Your task to perform on an android device: refresh tabs in the chrome app Image 0: 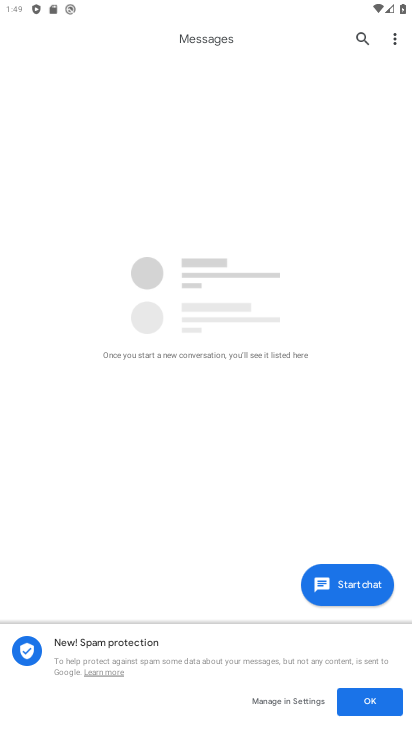
Step 0: press home button
Your task to perform on an android device: refresh tabs in the chrome app Image 1: 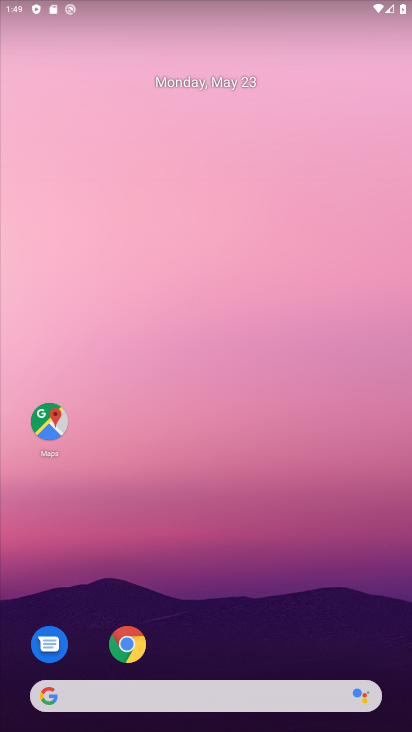
Step 1: drag from (245, 547) to (189, 14)
Your task to perform on an android device: refresh tabs in the chrome app Image 2: 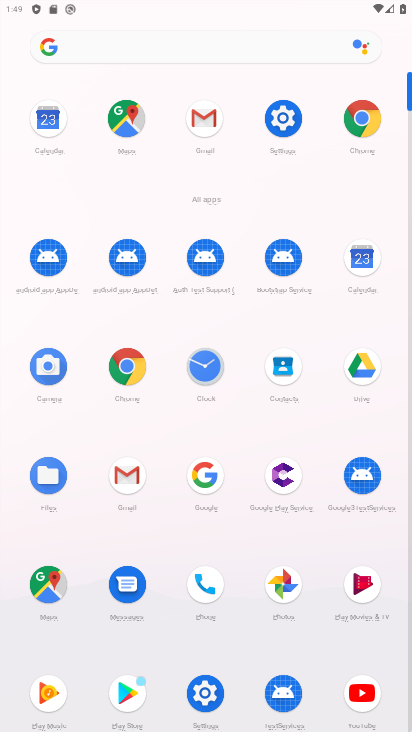
Step 2: click (359, 125)
Your task to perform on an android device: refresh tabs in the chrome app Image 3: 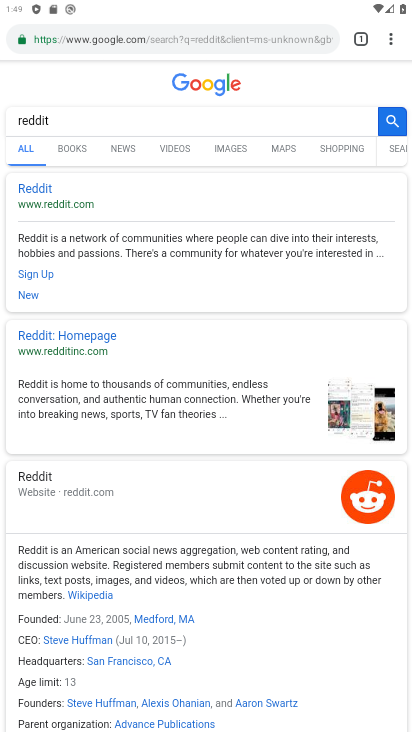
Step 3: click (384, 38)
Your task to perform on an android device: refresh tabs in the chrome app Image 4: 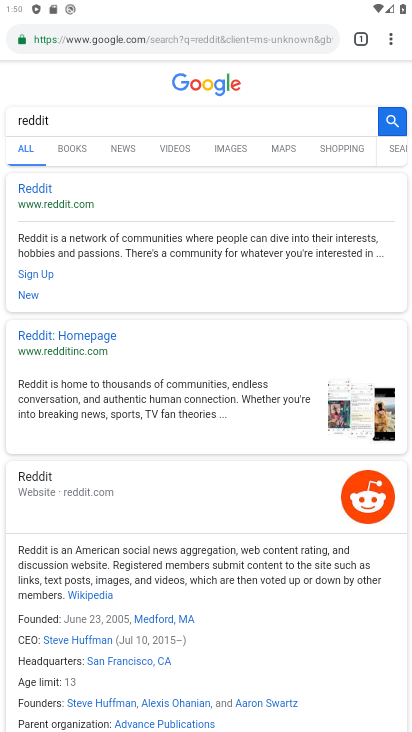
Step 4: click (45, 200)
Your task to perform on an android device: refresh tabs in the chrome app Image 5: 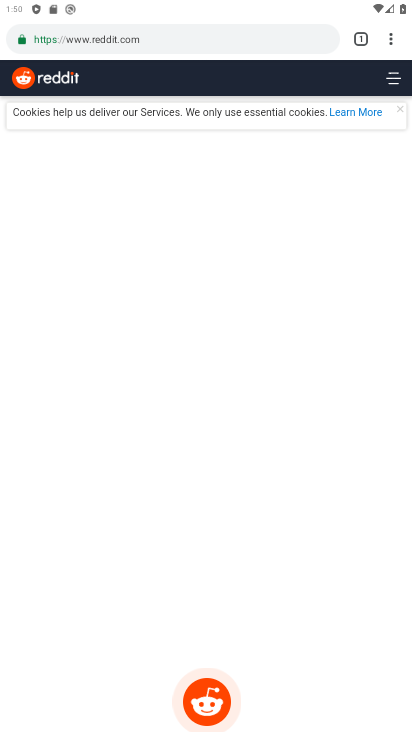
Step 5: task complete